Your task to perform on an android device: Open Maps and search for coffee Image 0: 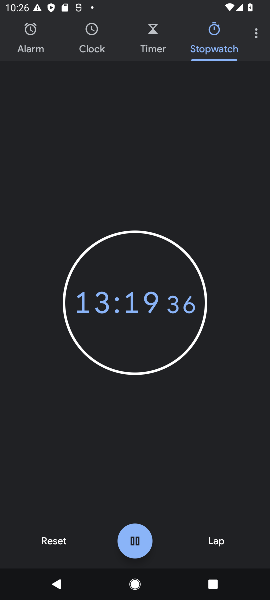
Step 0: press home button
Your task to perform on an android device: Open Maps and search for coffee Image 1: 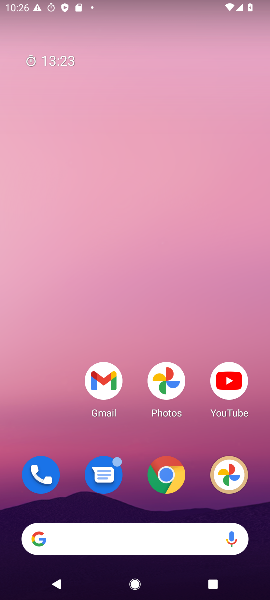
Step 1: drag from (133, 494) to (175, 103)
Your task to perform on an android device: Open Maps and search for coffee Image 2: 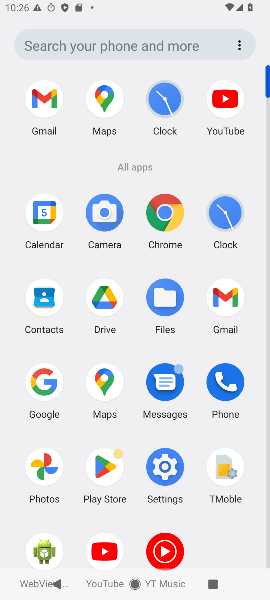
Step 2: click (96, 390)
Your task to perform on an android device: Open Maps and search for coffee Image 3: 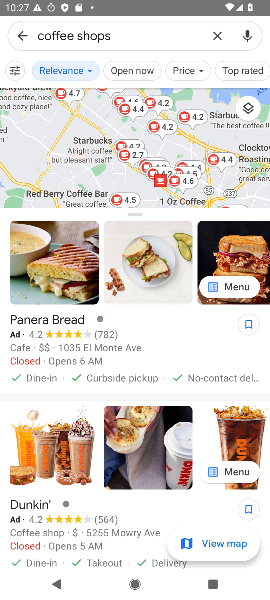
Step 3: click (80, 34)
Your task to perform on an android device: Open Maps and search for coffee Image 4: 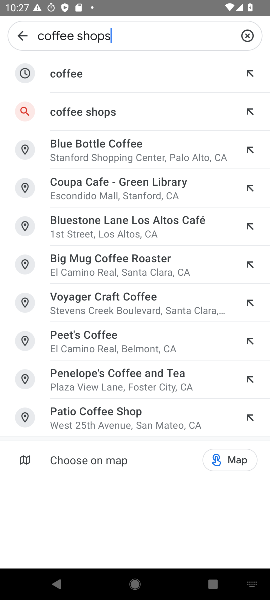
Step 4: click (97, 37)
Your task to perform on an android device: Open Maps and search for coffee Image 5: 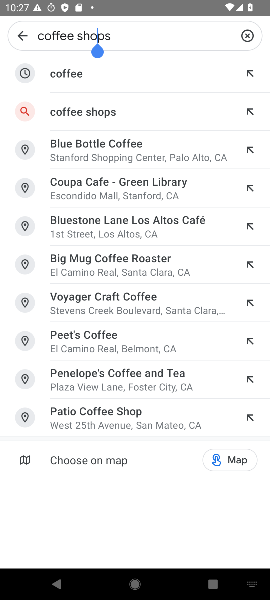
Step 5: click (96, 38)
Your task to perform on an android device: Open Maps and search for coffee Image 6: 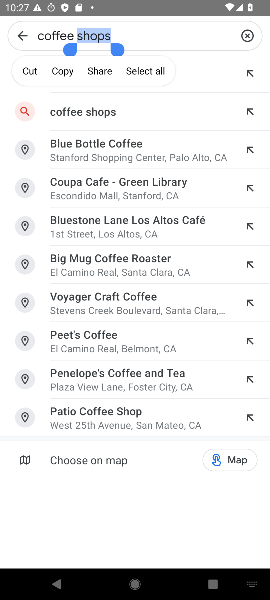
Step 6: type " "
Your task to perform on an android device: Open Maps and search for coffee Image 7: 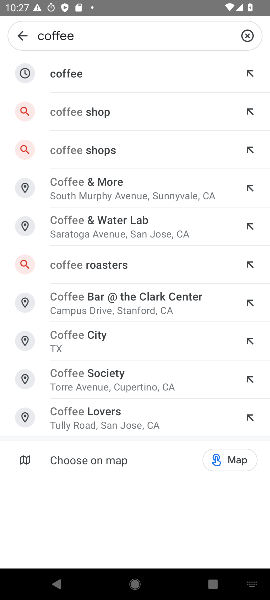
Step 7: click (78, 72)
Your task to perform on an android device: Open Maps and search for coffee Image 8: 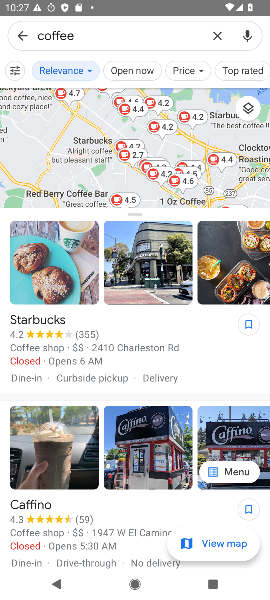
Step 8: task complete